Your task to perform on an android device: toggle show notifications on the lock screen Image 0: 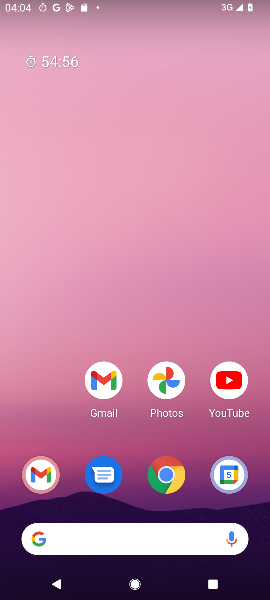
Step 0: press home button
Your task to perform on an android device: toggle show notifications on the lock screen Image 1: 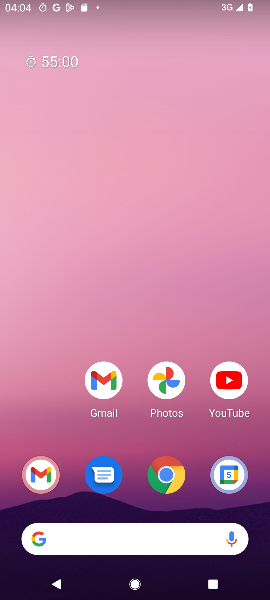
Step 1: drag from (66, 430) to (70, 250)
Your task to perform on an android device: toggle show notifications on the lock screen Image 2: 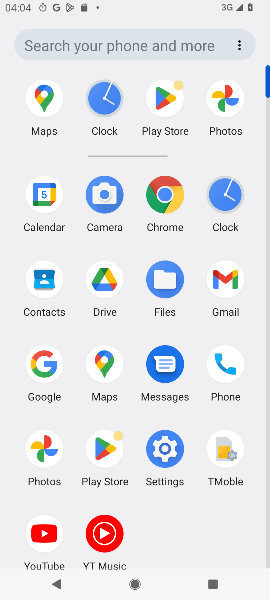
Step 2: click (161, 454)
Your task to perform on an android device: toggle show notifications on the lock screen Image 3: 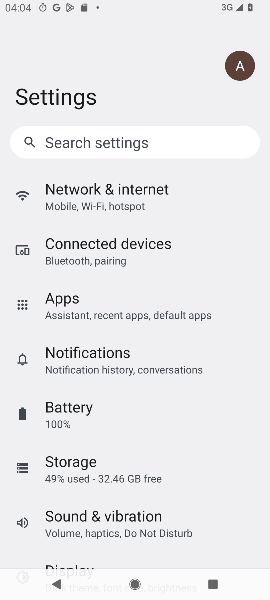
Step 3: drag from (229, 449) to (229, 364)
Your task to perform on an android device: toggle show notifications on the lock screen Image 4: 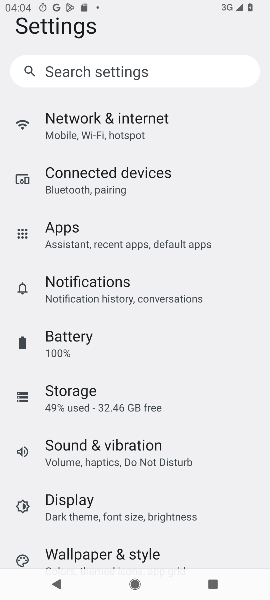
Step 4: drag from (228, 479) to (230, 402)
Your task to perform on an android device: toggle show notifications on the lock screen Image 5: 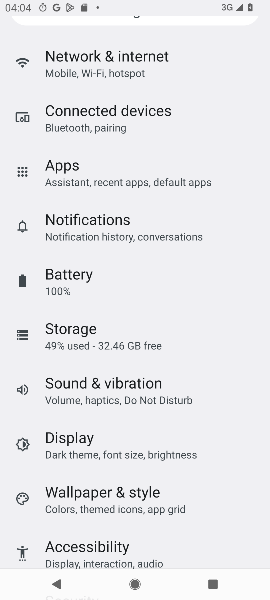
Step 5: drag from (220, 523) to (220, 438)
Your task to perform on an android device: toggle show notifications on the lock screen Image 6: 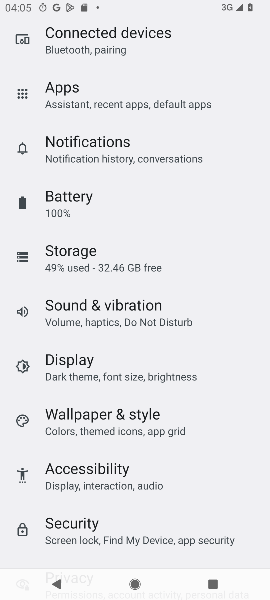
Step 6: drag from (211, 520) to (217, 421)
Your task to perform on an android device: toggle show notifications on the lock screen Image 7: 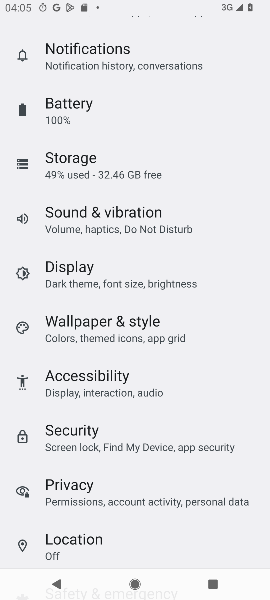
Step 7: drag from (215, 538) to (218, 457)
Your task to perform on an android device: toggle show notifications on the lock screen Image 8: 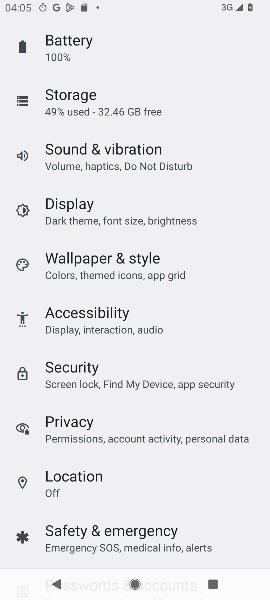
Step 8: drag from (217, 520) to (217, 407)
Your task to perform on an android device: toggle show notifications on the lock screen Image 9: 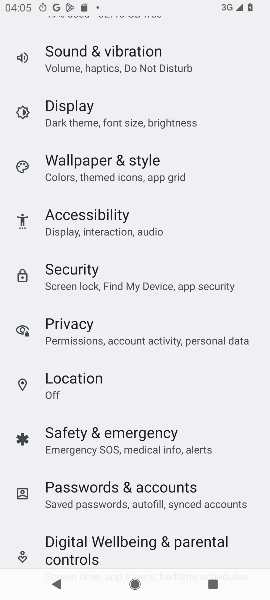
Step 9: drag from (236, 248) to (235, 326)
Your task to perform on an android device: toggle show notifications on the lock screen Image 10: 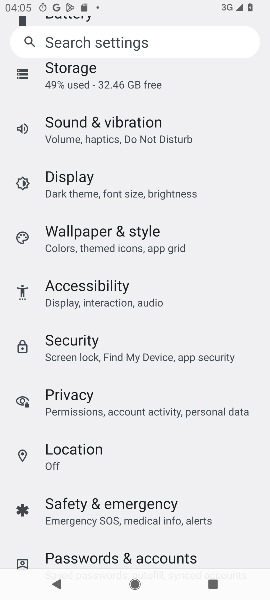
Step 10: drag from (224, 235) to (223, 318)
Your task to perform on an android device: toggle show notifications on the lock screen Image 11: 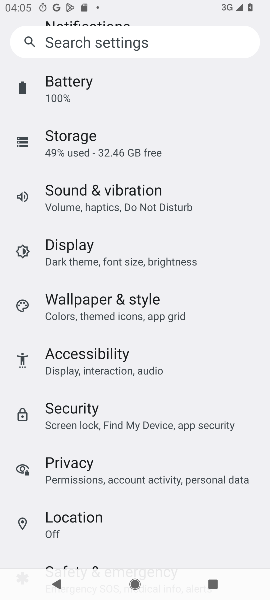
Step 11: drag from (237, 194) to (237, 301)
Your task to perform on an android device: toggle show notifications on the lock screen Image 12: 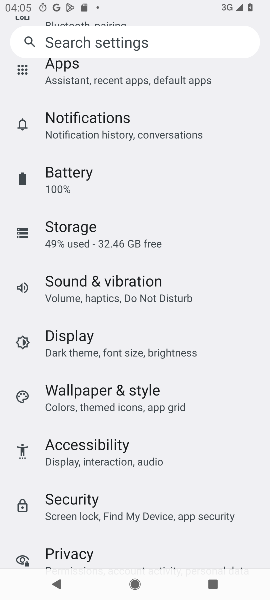
Step 12: drag from (225, 175) to (227, 260)
Your task to perform on an android device: toggle show notifications on the lock screen Image 13: 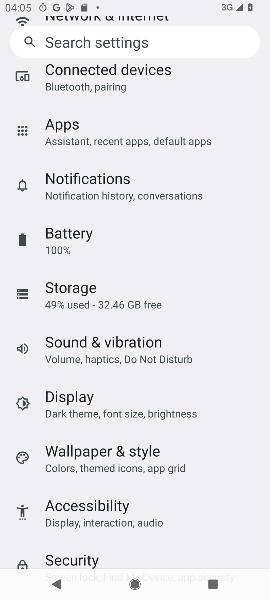
Step 13: drag from (233, 164) to (248, 396)
Your task to perform on an android device: toggle show notifications on the lock screen Image 14: 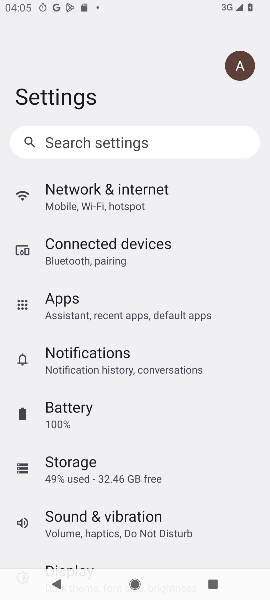
Step 14: click (169, 367)
Your task to perform on an android device: toggle show notifications on the lock screen Image 15: 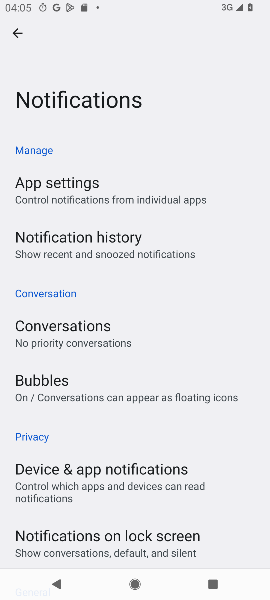
Step 15: drag from (180, 462) to (197, 297)
Your task to perform on an android device: toggle show notifications on the lock screen Image 16: 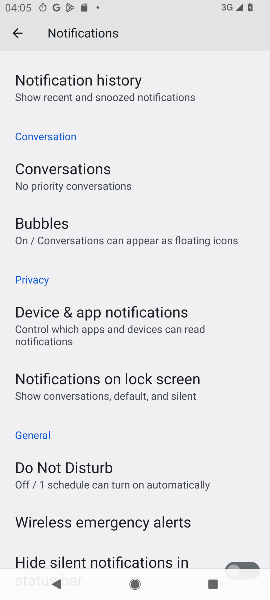
Step 16: drag from (223, 451) to (227, 348)
Your task to perform on an android device: toggle show notifications on the lock screen Image 17: 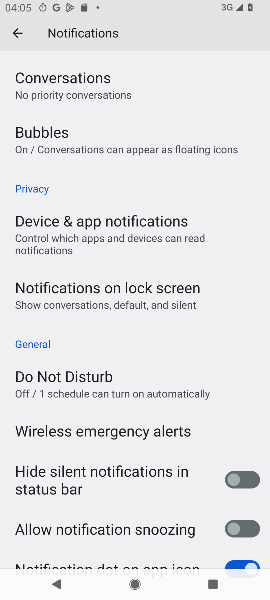
Step 17: click (136, 299)
Your task to perform on an android device: toggle show notifications on the lock screen Image 18: 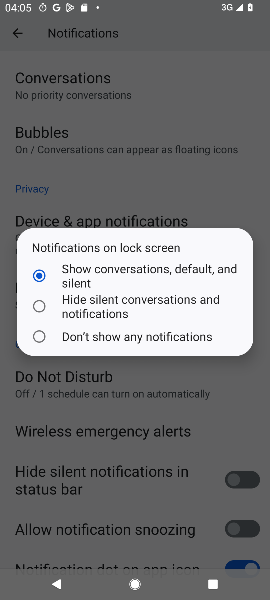
Step 18: click (41, 299)
Your task to perform on an android device: toggle show notifications on the lock screen Image 19: 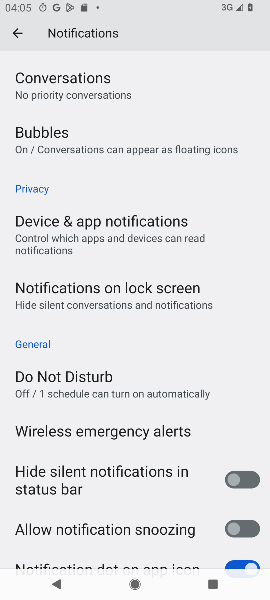
Step 19: task complete